Your task to perform on an android device: change the clock display to analog Image 0: 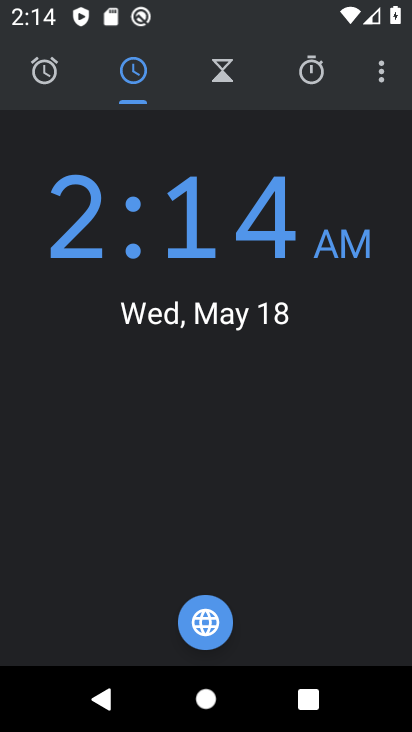
Step 0: click (366, 88)
Your task to perform on an android device: change the clock display to analog Image 1: 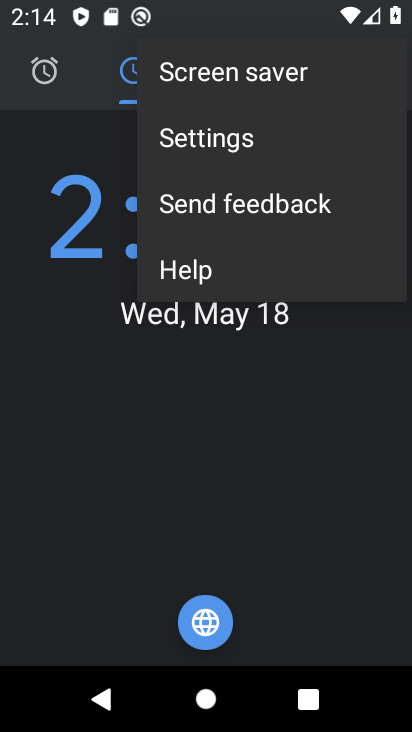
Step 1: click (302, 147)
Your task to perform on an android device: change the clock display to analog Image 2: 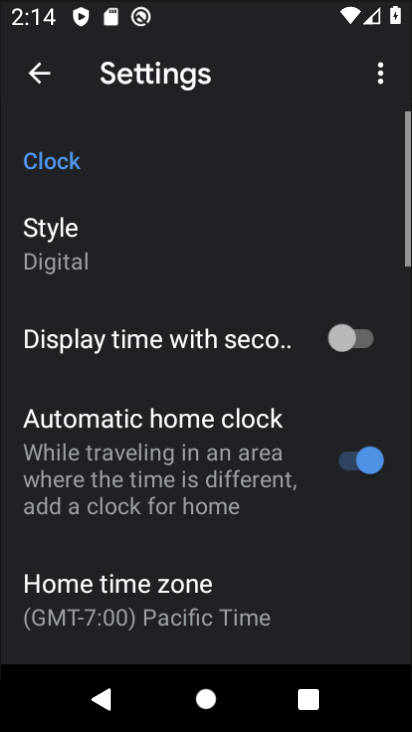
Step 2: click (302, 147)
Your task to perform on an android device: change the clock display to analog Image 3: 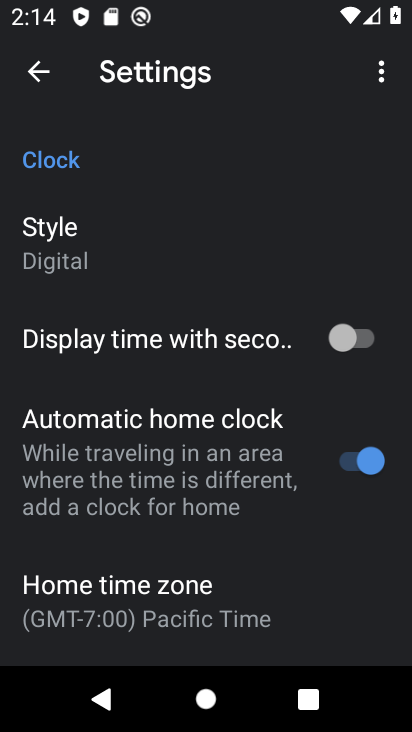
Step 3: click (80, 247)
Your task to perform on an android device: change the clock display to analog Image 4: 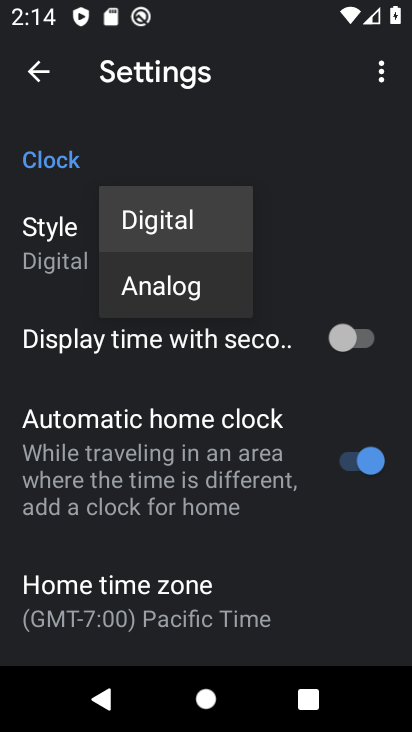
Step 4: click (155, 286)
Your task to perform on an android device: change the clock display to analog Image 5: 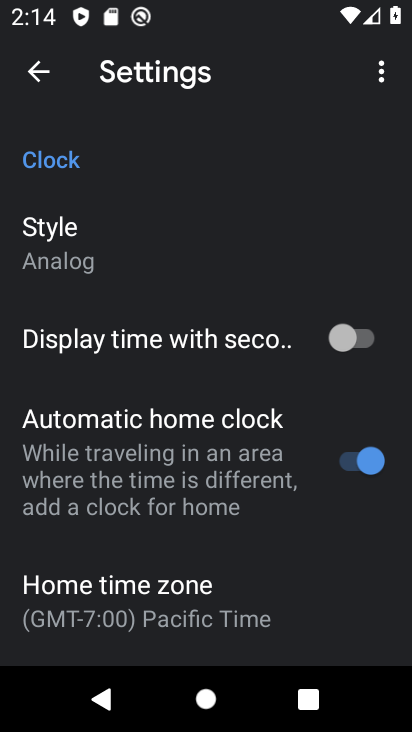
Step 5: task complete